Your task to perform on an android device: Turn off the flashlight Image 0: 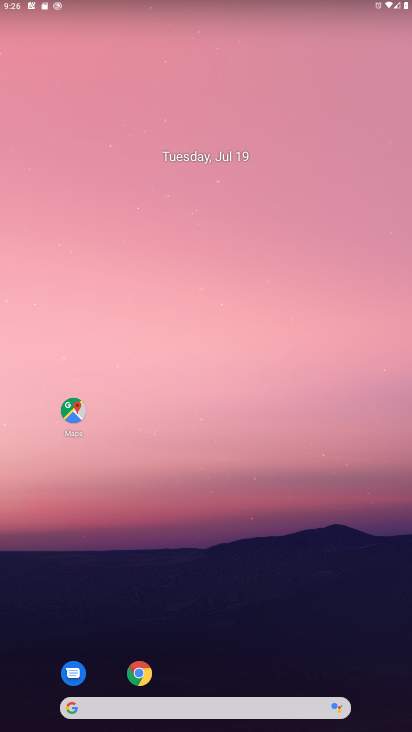
Step 0: drag from (207, 14) to (208, 503)
Your task to perform on an android device: Turn off the flashlight Image 1: 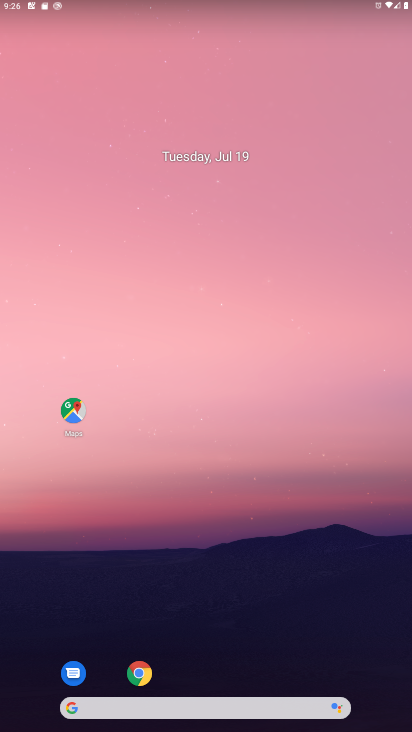
Step 1: drag from (219, 16) to (224, 483)
Your task to perform on an android device: Turn off the flashlight Image 2: 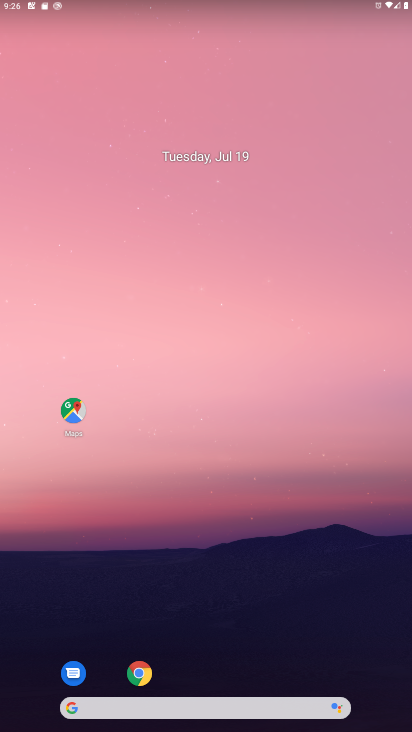
Step 2: drag from (233, 7) to (306, 585)
Your task to perform on an android device: Turn off the flashlight Image 3: 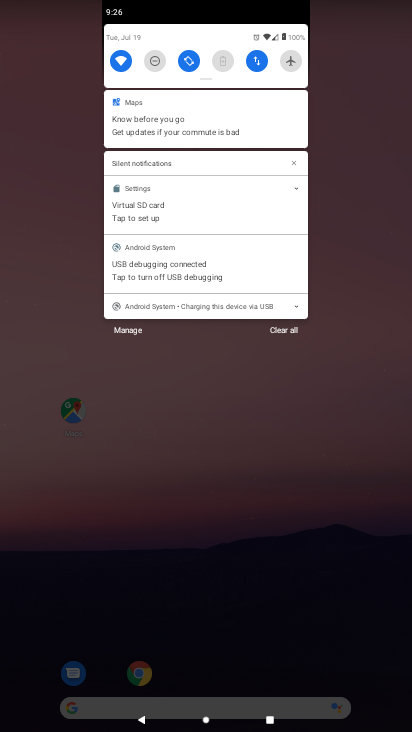
Step 3: drag from (204, 80) to (203, 375)
Your task to perform on an android device: Turn off the flashlight Image 4: 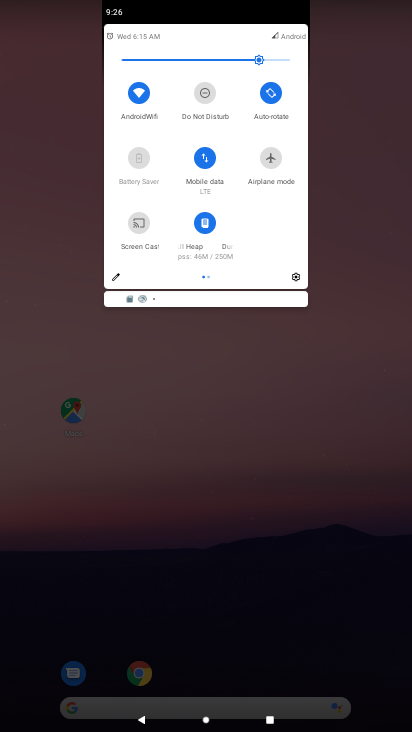
Step 4: click (112, 274)
Your task to perform on an android device: Turn off the flashlight Image 5: 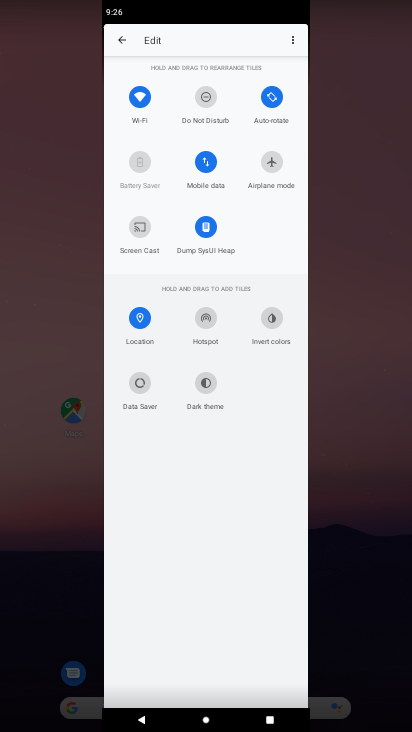
Step 5: task complete